Your task to perform on an android device: Search for vegetarian restaurants on Maps Image 0: 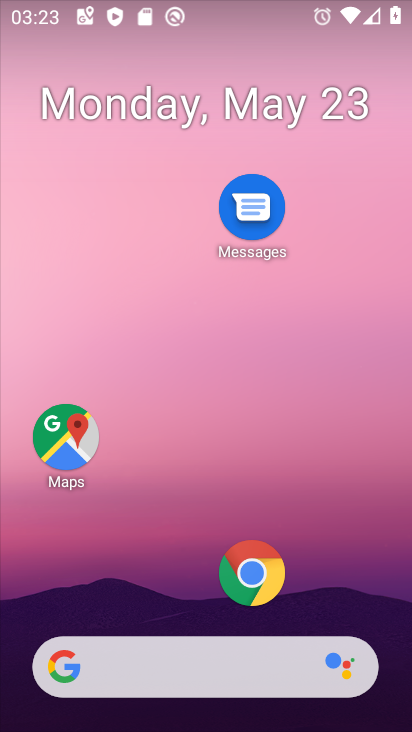
Step 0: drag from (200, 712) to (254, 121)
Your task to perform on an android device: Search for vegetarian restaurants on Maps Image 1: 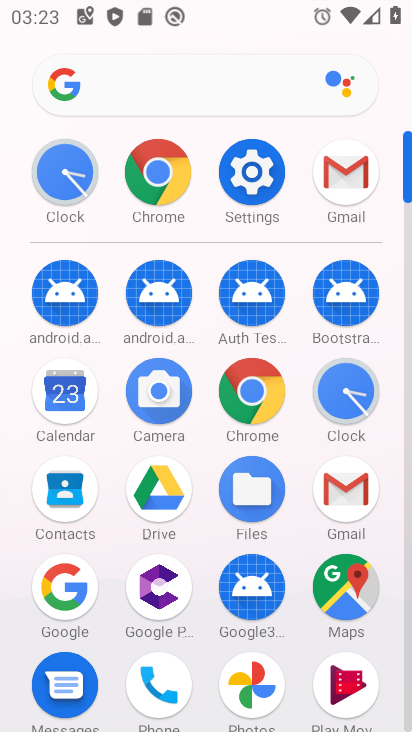
Step 1: click (336, 580)
Your task to perform on an android device: Search for vegetarian restaurants on Maps Image 2: 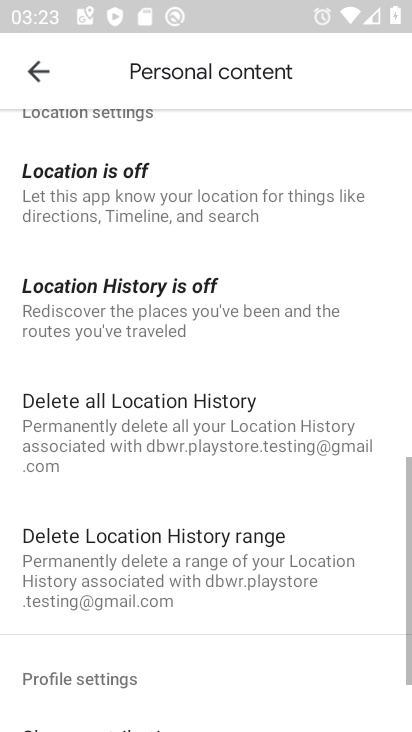
Step 2: press back button
Your task to perform on an android device: Search for vegetarian restaurants on Maps Image 3: 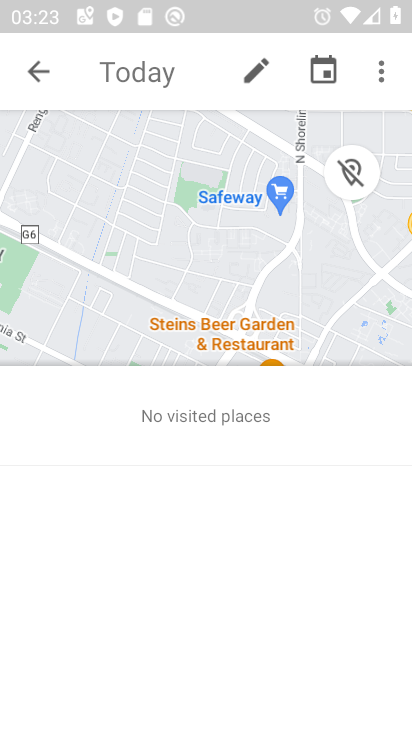
Step 3: press back button
Your task to perform on an android device: Search for vegetarian restaurants on Maps Image 4: 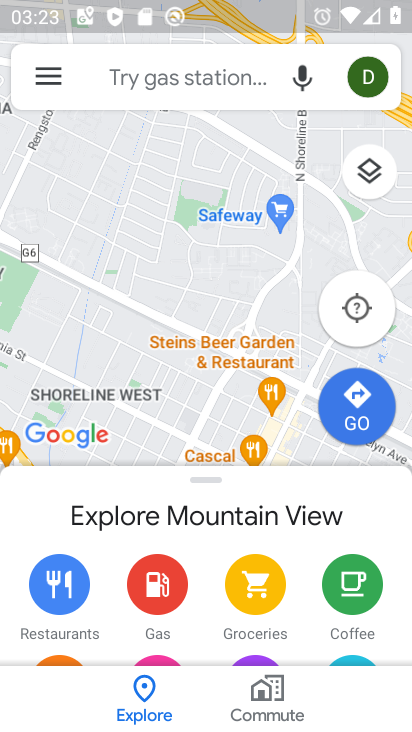
Step 4: click (230, 81)
Your task to perform on an android device: Search for vegetarian restaurants on Maps Image 5: 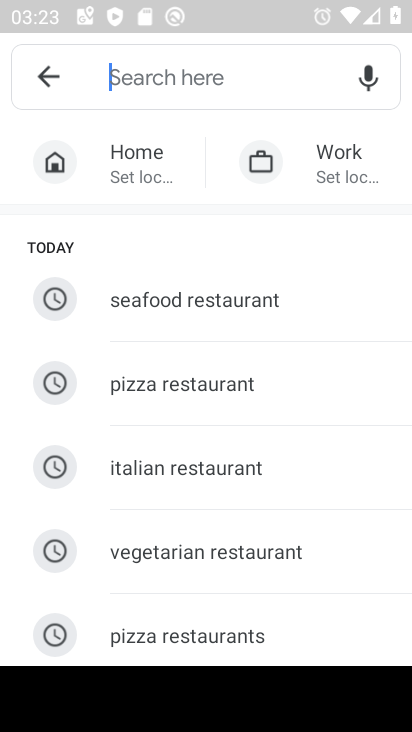
Step 5: type "vegetarian restaurant"
Your task to perform on an android device: Search for vegetarian restaurants on Maps Image 6: 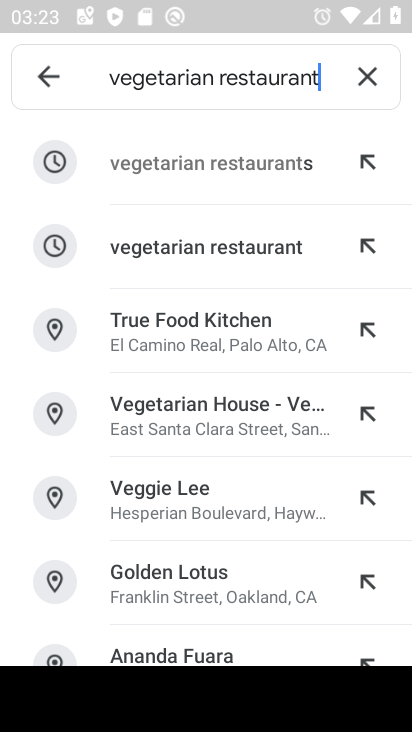
Step 6: click (277, 161)
Your task to perform on an android device: Search for vegetarian restaurants on Maps Image 7: 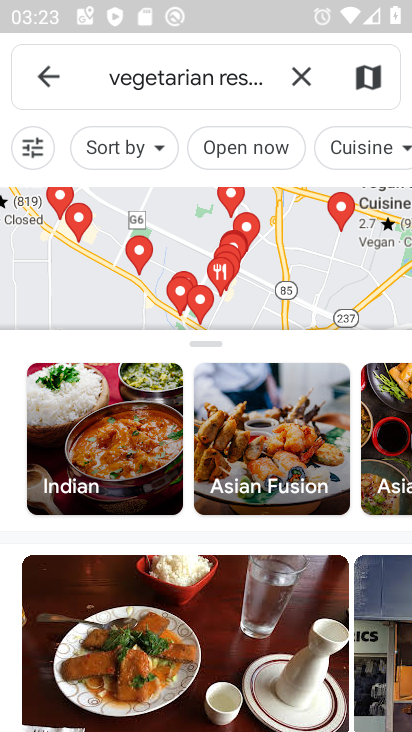
Step 7: task complete